Your task to perform on an android device: Is it going to rain tomorrow? Image 0: 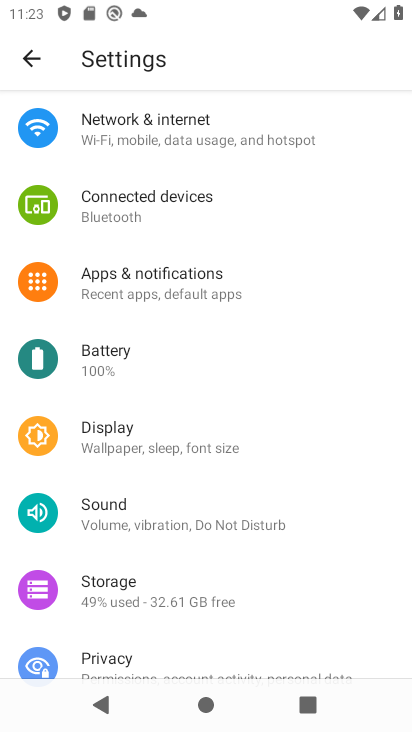
Step 0: press home button
Your task to perform on an android device: Is it going to rain tomorrow? Image 1: 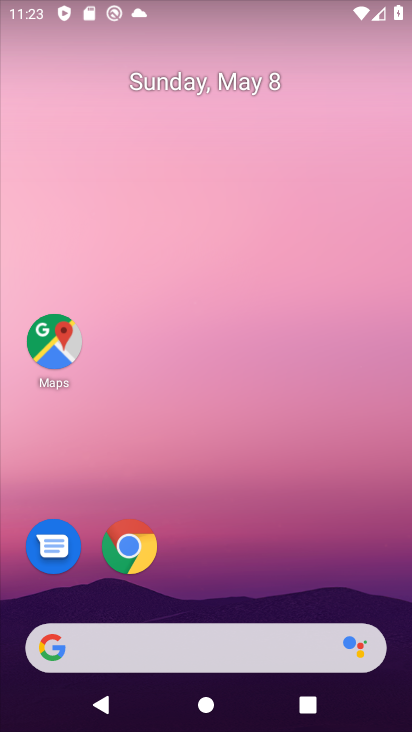
Step 1: click (133, 549)
Your task to perform on an android device: Is it going to rain tomorrow? Image 2: 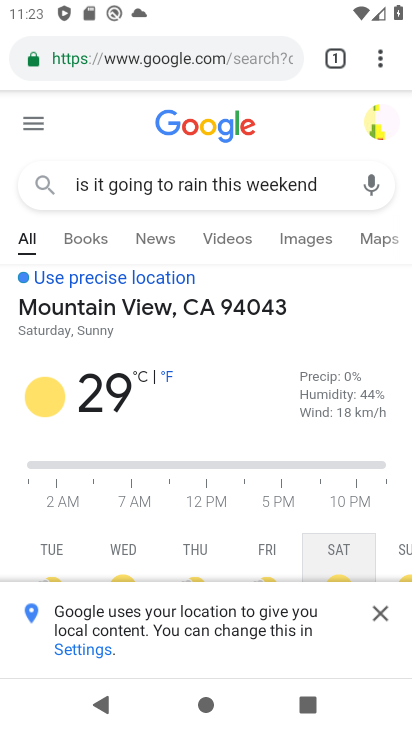
Step 2: click (190, 60)
Your task to perform on an android device: Is it going to rain tomorrow? Image 3: 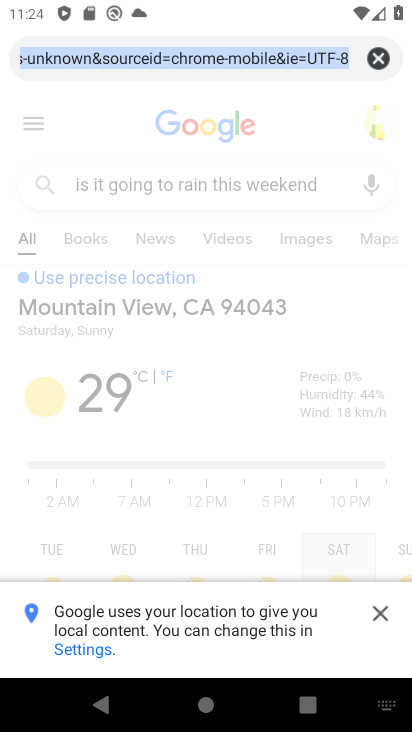
Step 3: type "is it going to rain tomorrow"
Your task to perform on an android device: Is it going to rain tomorrow? Image 4: 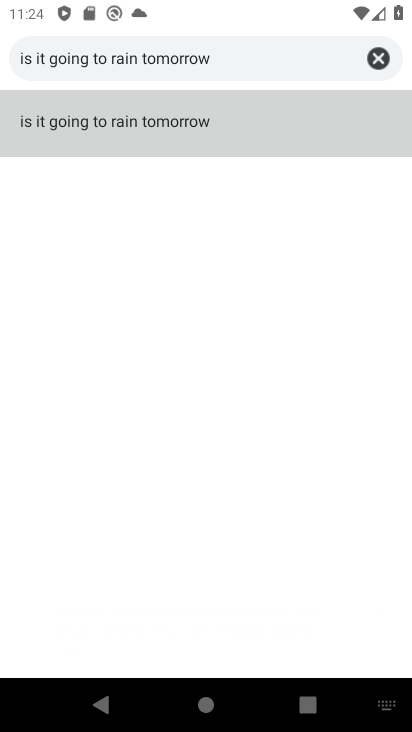
Step 4: click (188, 134)
Your task to perform on an android device: Is it going to rain tomorrow? Image 5: 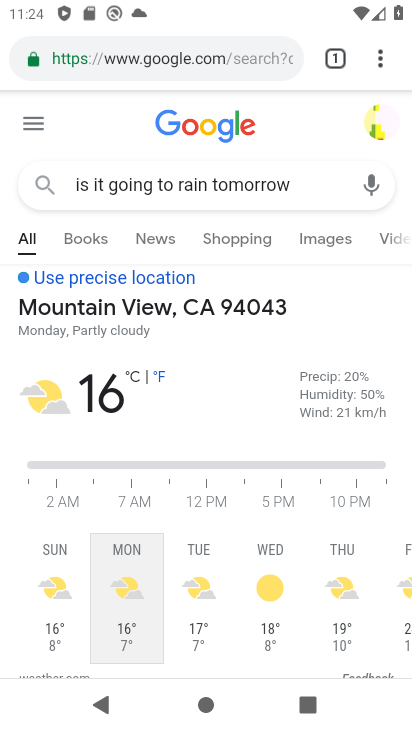
Step 5: task complete